Your task to perform on an android device: create a new album in the google photos Image 0: 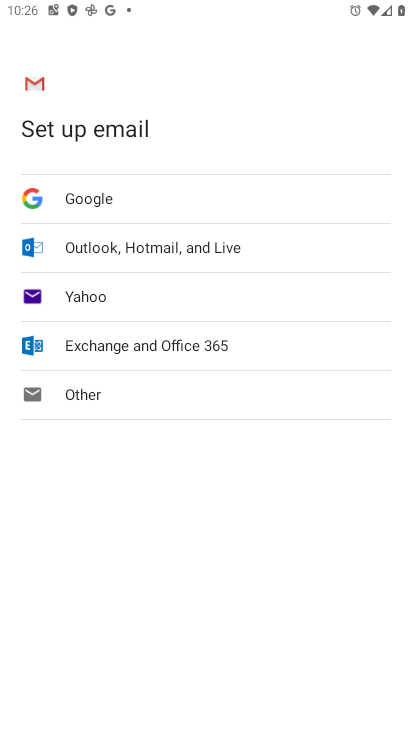
Step 0: press home button
Your task to perform on an android device: create a new album in the google photos Image 1: 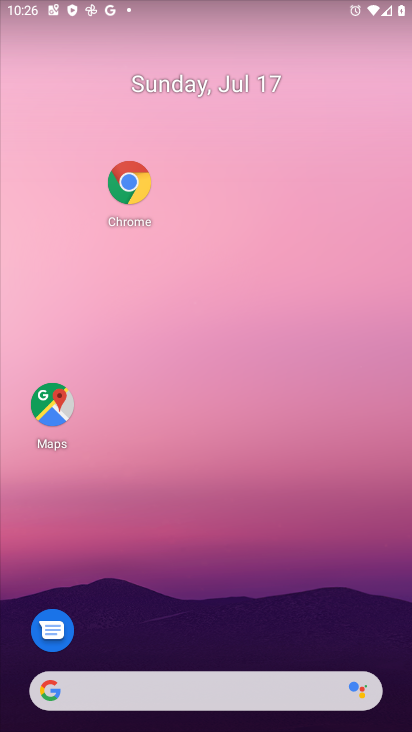
Step 1: drag from (176, 569) to (190, 82)
Your task to perform on an android device: create a new album in the google photos Image 2: 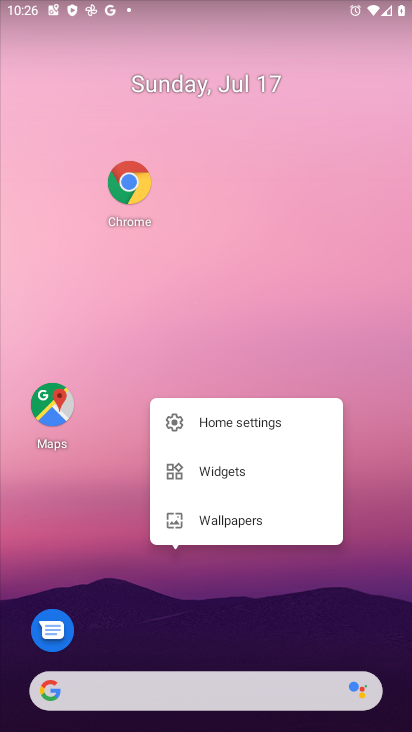
Step 2: click (226, 604)
Your task to perform on an android device: create a new album in the google photos Image 3: 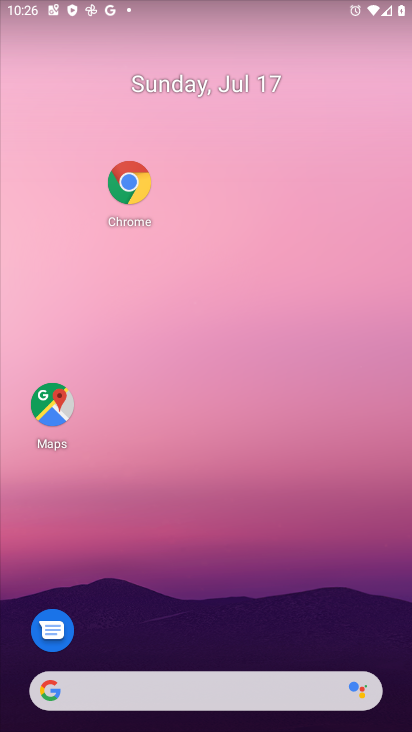
Step 3: drag from (226, 513) to (219, 100)
Your task to perform on an android device: create a new album in the google photos Image 4: 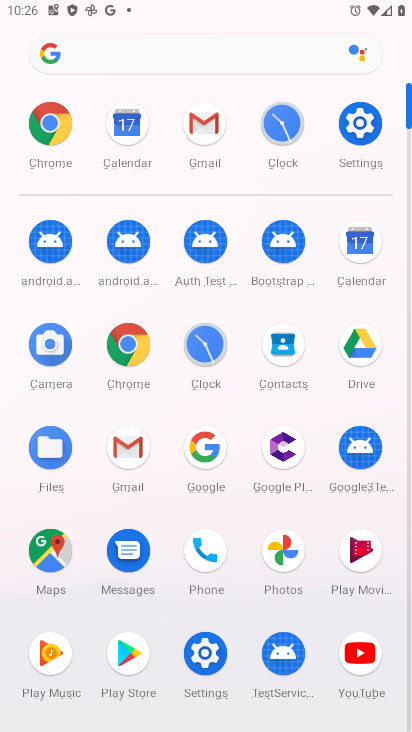
Step 4: click (287, 558)
Your task to perform on an android device: create a new album in the google photos Image 5: 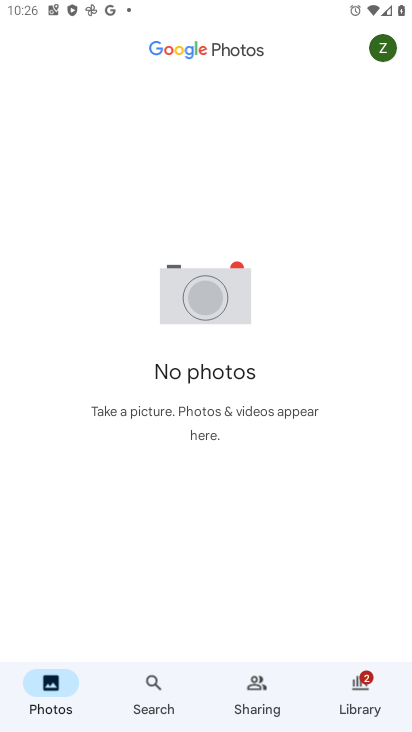
Step 5: click (359, 684)
Your task to perform on an android device: create a new album in the google photos Image 6: 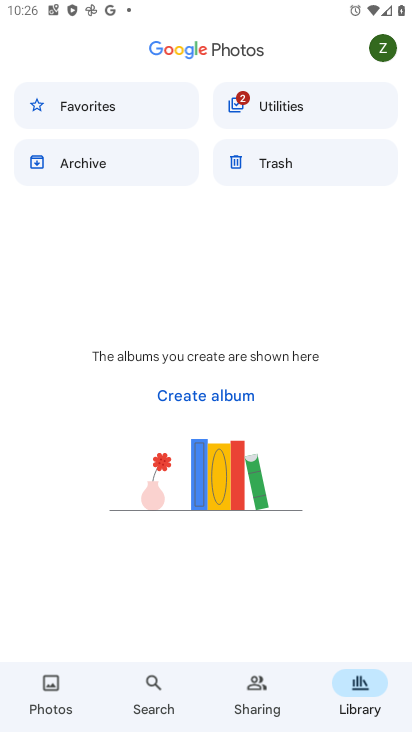
Step 6: click (189, 399)
Your task to perform on an android device: create a new album in the google photos Image 7: 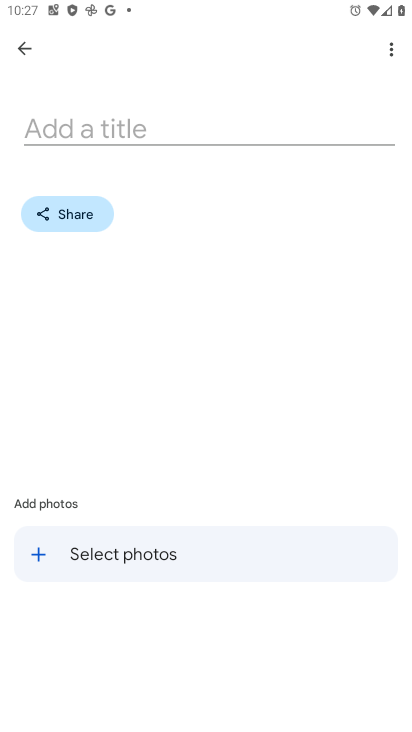
Step 7: click (112, 118)
Your task to perform on an android device: create a new album in the google photos Image 8: 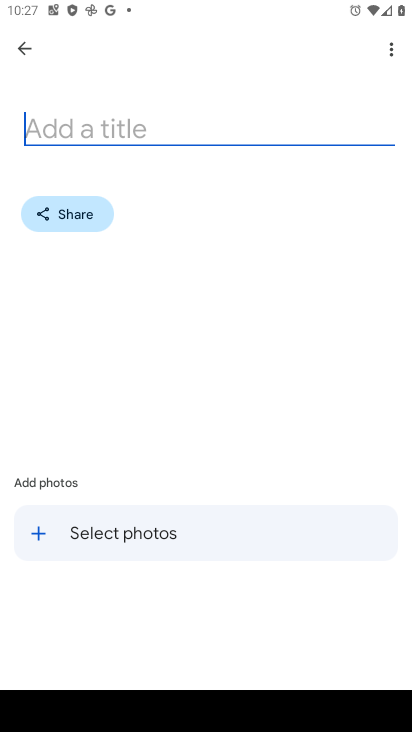
Step 8: type "Narender"
Your task to perform on an android device: create a new album in the google photos Image 9: 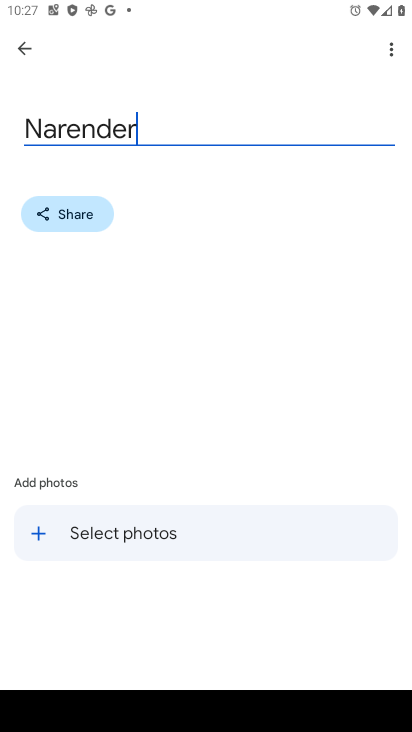
Step 9: click (70, 537)
Your task to perform on an android device: create a new album in the google photos Image 10: 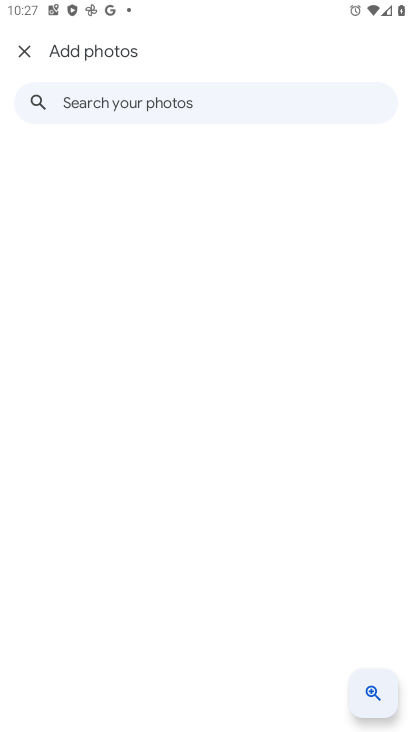
Step 10: task complete